Your task to perform on an android device: allow cookies in the chrome app Image 0: 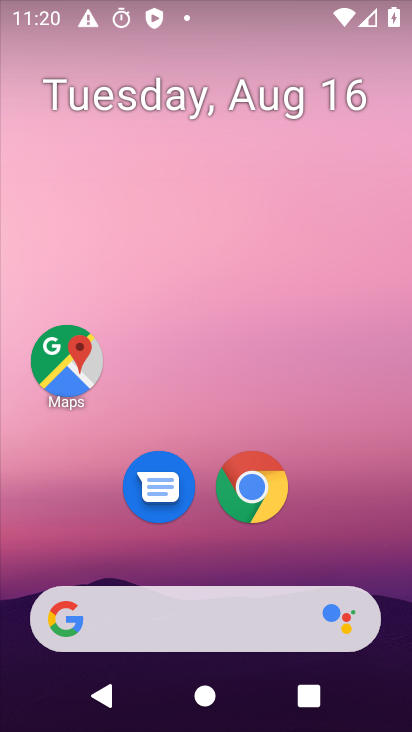
Step 0: click (278, 482)
Your task to perform on an android device: allow cookies in the chrome app Image 1: 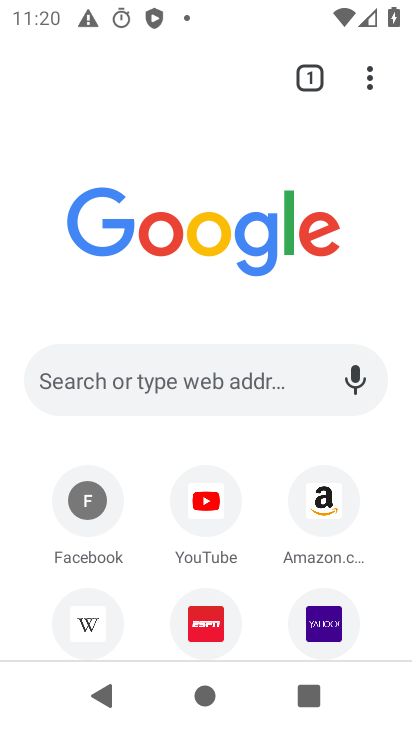
Step 1: click (383, 82)
Your task to perform on an android device: allow cookies in the chrome app Image 2: 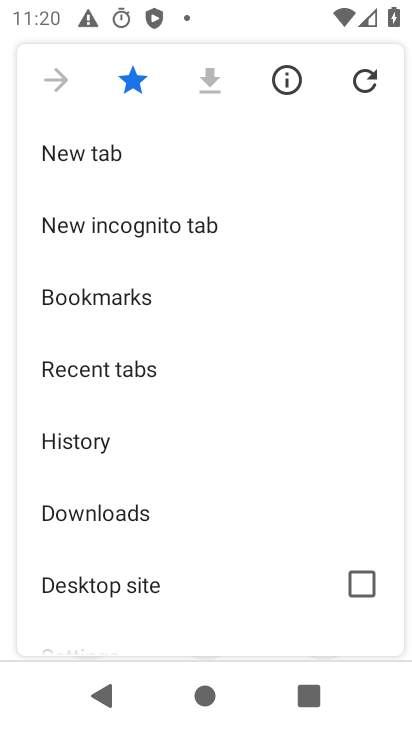
Step 2: drag from (263, 559) to (247, 255)
Your task to perform on an android device: allow cookies in the chrome app Image 3: 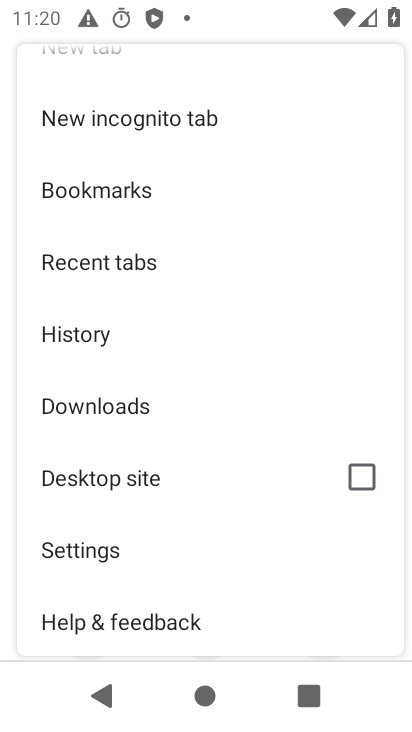
Step 3: click (95, 555)
Your task to perform on an android device: allow cookies in the chrome app Image 4: 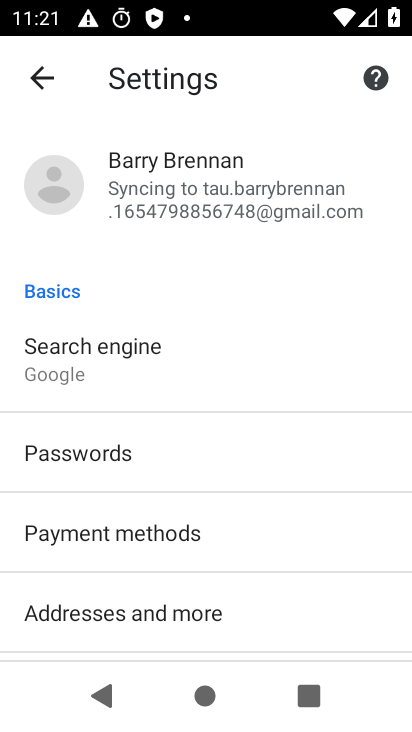
Step 4: drag from (280, 469) to (215, 178)
Your task to perform on an android device: allow cookies in the chrome app Image 5: 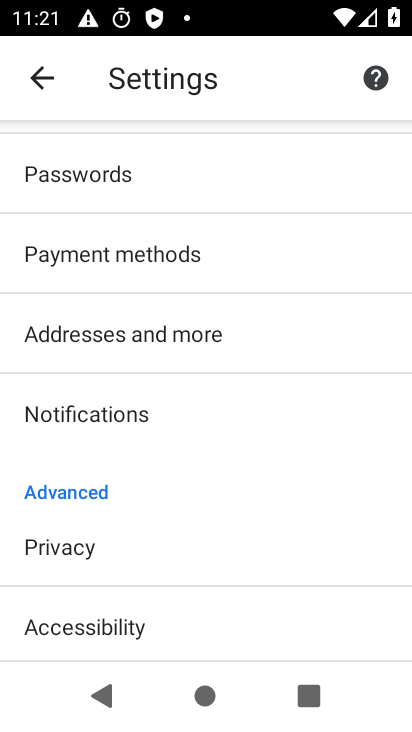
Step 5: drag from (212, 594) to (190, 242)
Your task to perform on an android device: allow cookies in the chrome app Image 6: 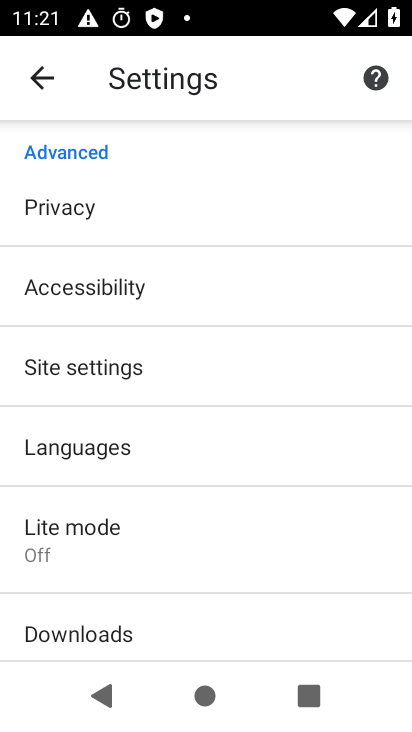
Step 6: click (125, 356)
Your task to perform on an android device: allow cookies in the chrome app Image 7: 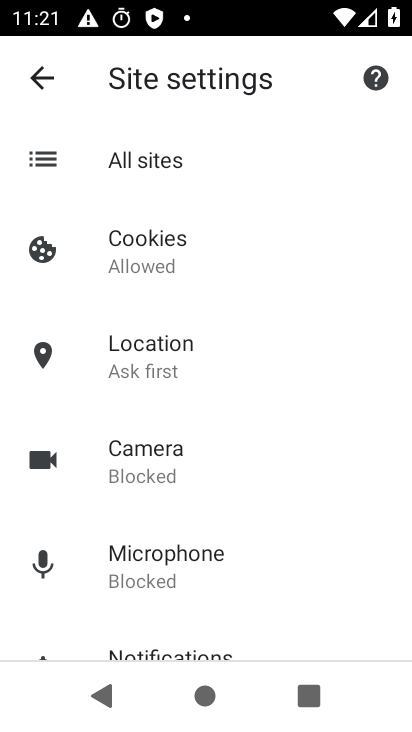
Step 7: click (179, 250)
Your task to perform on an android device: allow cookies in the chrome app Image 8: 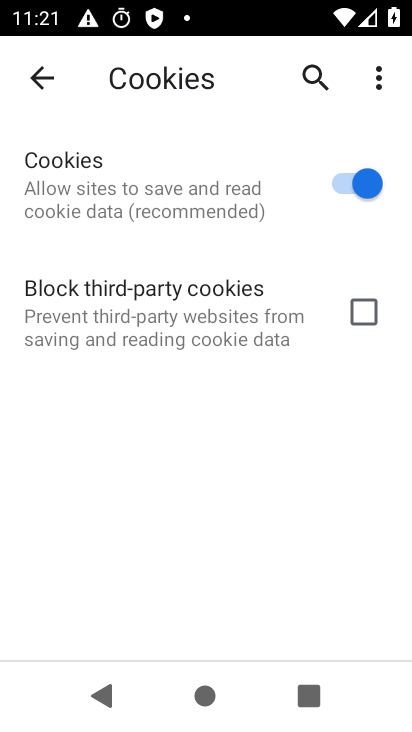
Step 8: task complete